Your task to perform on an android device: change alarm snooze length Image 0: 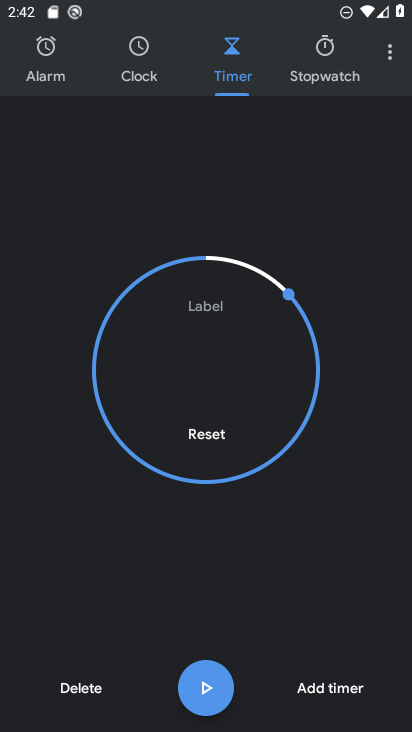
Step 0: press back button
Your task to perform on an android device: change alarm snooze length Image 1: 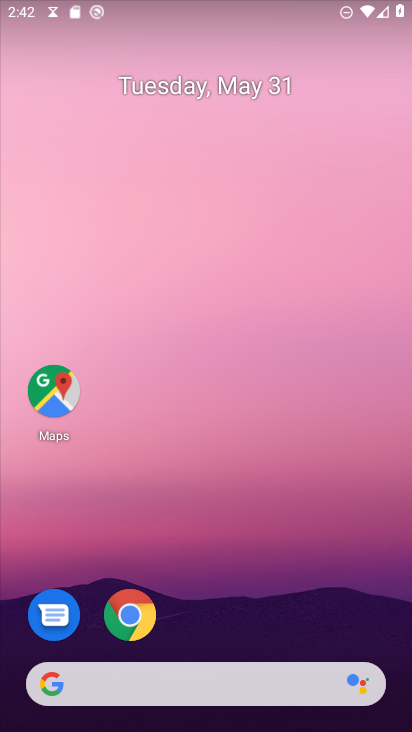
Step 1: drag from (233, 695) to (210, 106)
Your task to perform on an android device: change alarm snooze length Image 2: 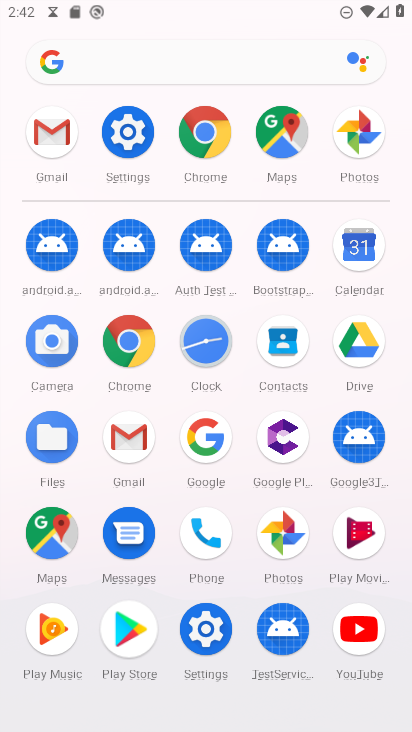
Step 2: click (202, 343)
Your task to perform on an android device: change alarm snooze length Image 3: 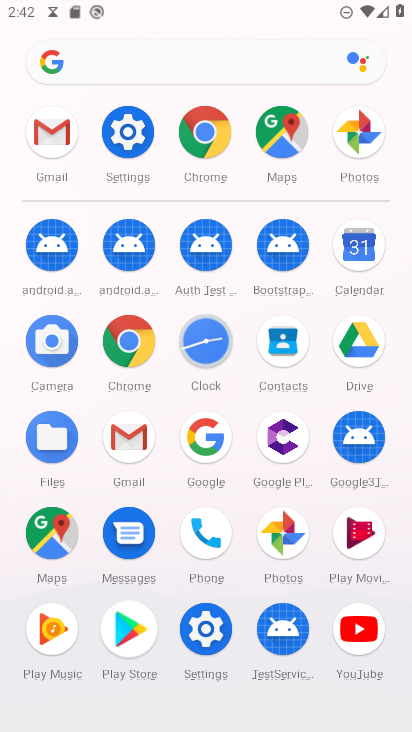
Step 3: click (203, 342)
Your task to perform on an android device: change alarm snooze length Image 4: 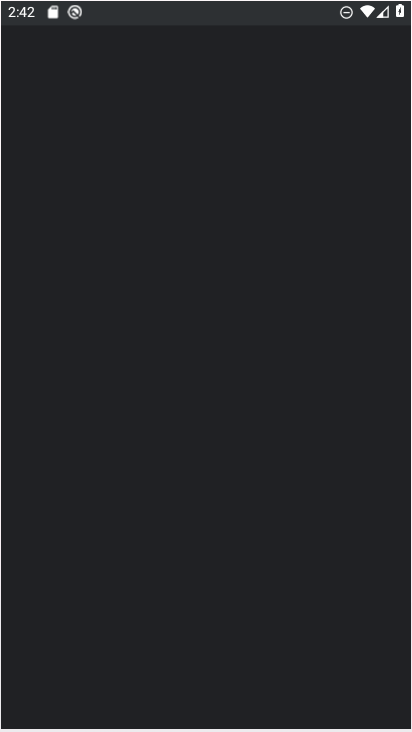
Step 4: click (203, 342)
Your task to perform on an android device: change alarm snooze length Image 5: 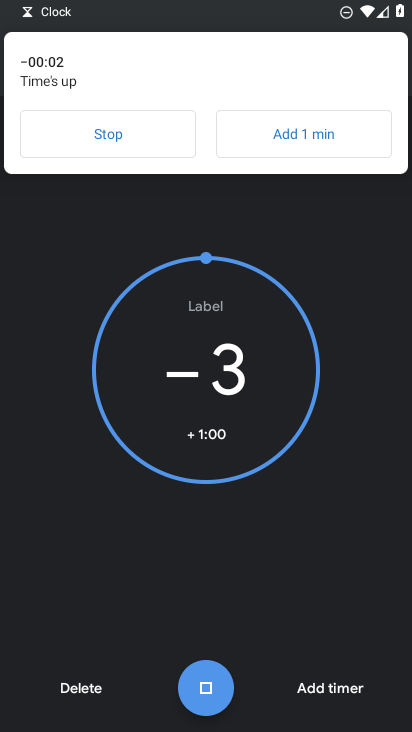
Step 5: click (202, 672)
Your task to perform on an android device: change alarm snooze length Image 6: 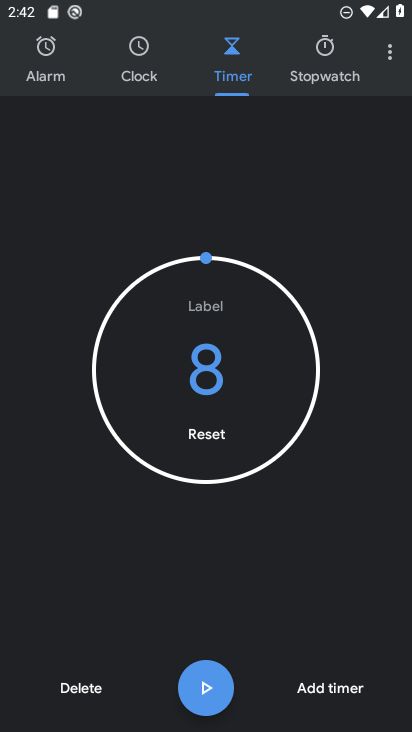
Step 6: click (40, 69)
Your task to perform on an android device: change alarm snooze length Image 7: 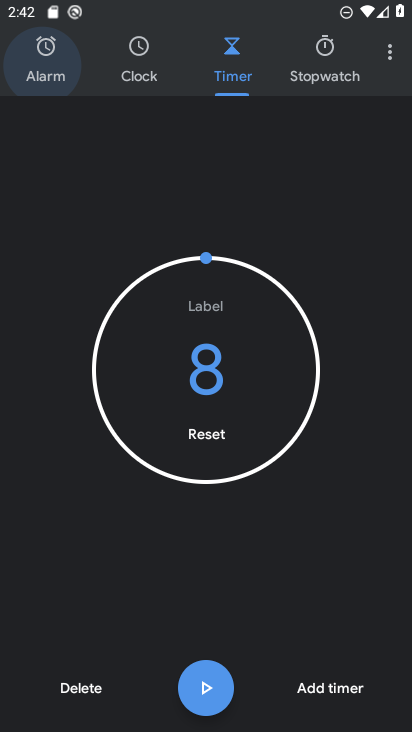
Step 7: click (40, 69)
Your task to perform on an android device: change alarm snooze length Image 8: 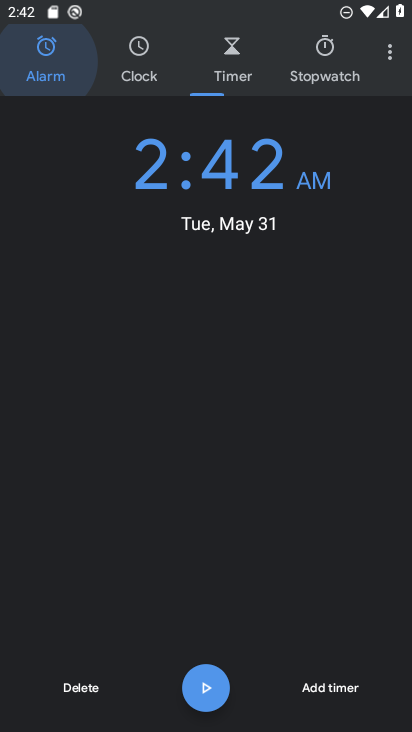
Step 8: click (40, 69)
Your task to perform on an android device: change alarm snooze length Image 9: 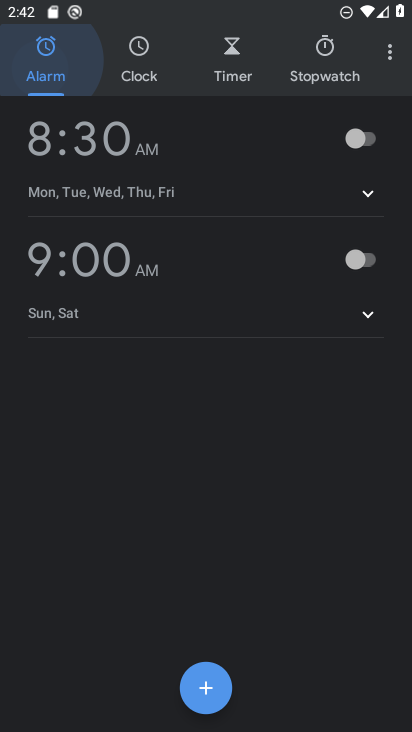
Step 9: click (40, 69)
Your task to perform on an android device: change alarm snooze length Image 10: 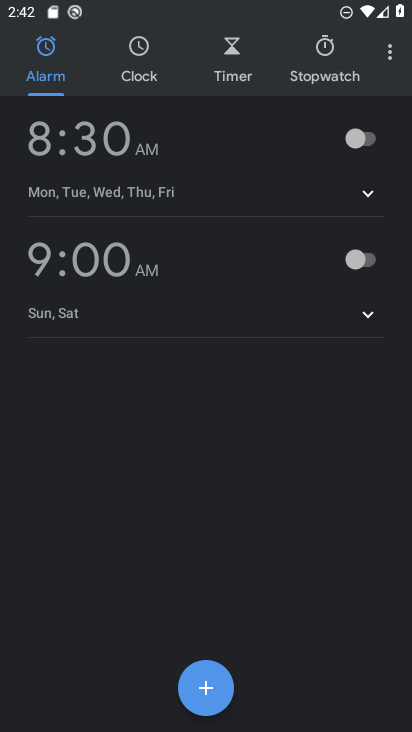
Step 10: click (390, 56)
Your task to perform on an android device: change alarm snooze length Image 11: 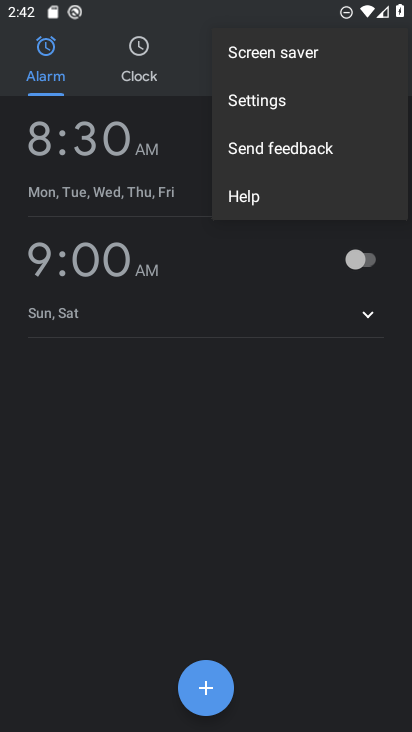
Step 11: click (243, 107)
Your task to perform on an android device: change alarm snooze length Image 12: 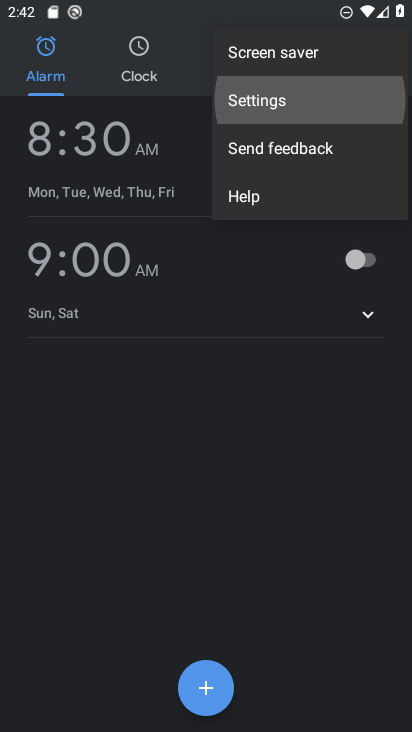
Step 12: click (244, 106)
Your task to perform on an android device: change alarm snooze length Image 13: 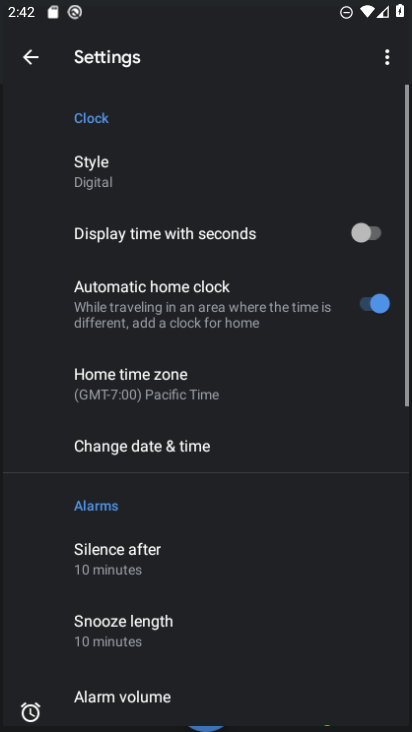
Step 13: click (246, 104)
Your task to perform on an android device: change alarm snooze length Image 14: 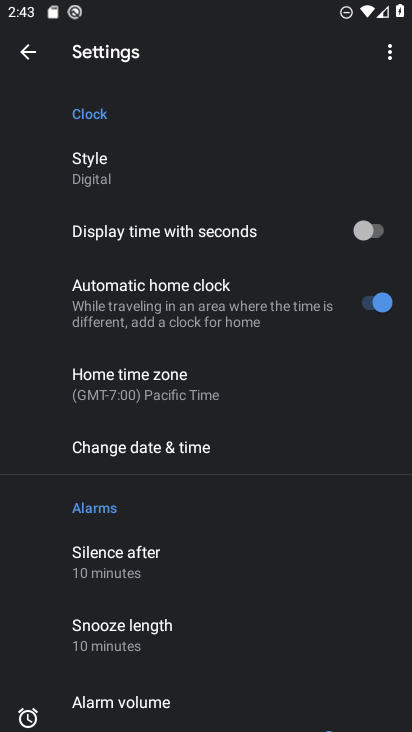
Step 14: click (120, 638)
Your task to perform on an android device: change alarm snooze length Image 15: 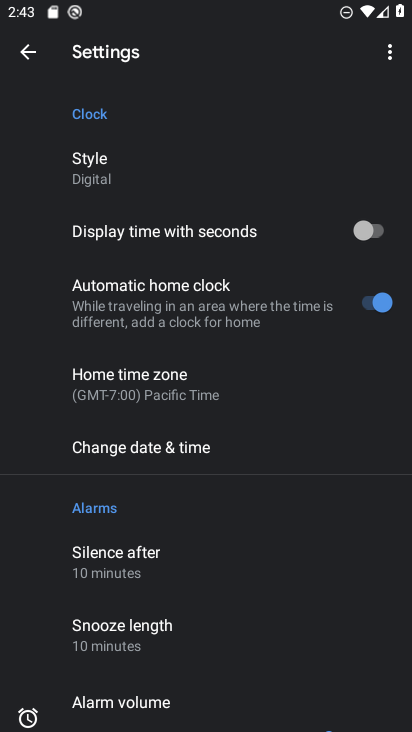
Step 15: click (148, 639)
Your task to perform on an android device: change alarm snooze length Image 16: 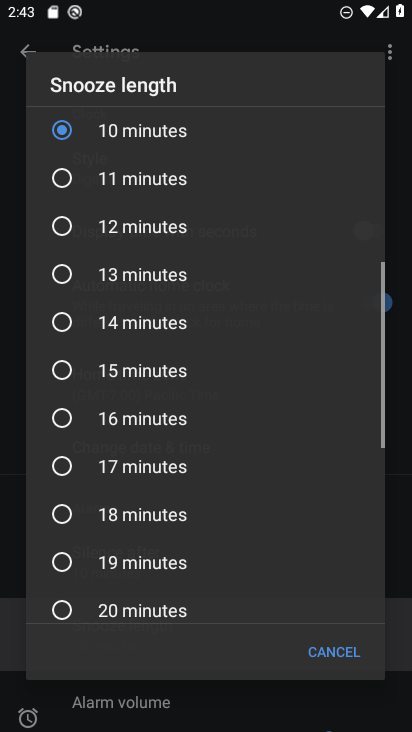
Step 16: click (142, 640)
Your task to perform on an android device: change alarm snooze length Image 17: 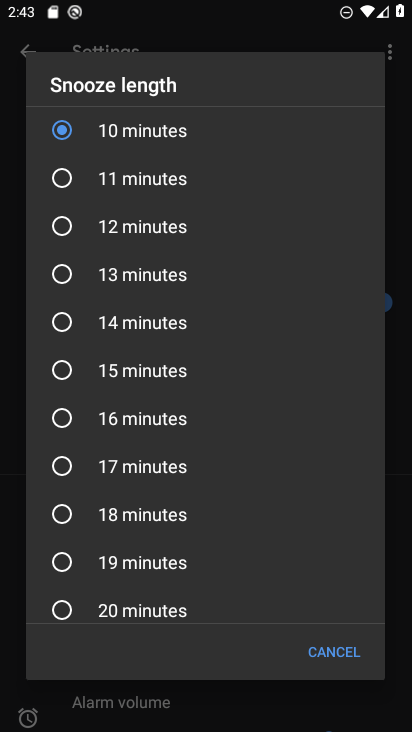
Step 17: click (63, 178)
Your task to perform on an android device: change alarm snooze length Image 18: 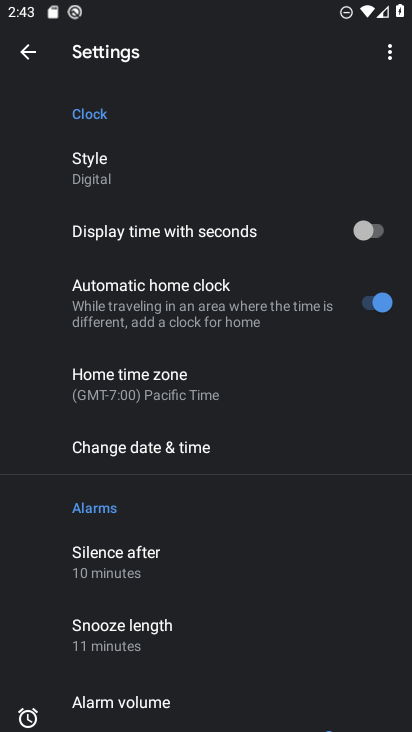
Step 18: task complete